Your task to perform on an android device: Open the phone app and click the voicemail tab. Image 0: 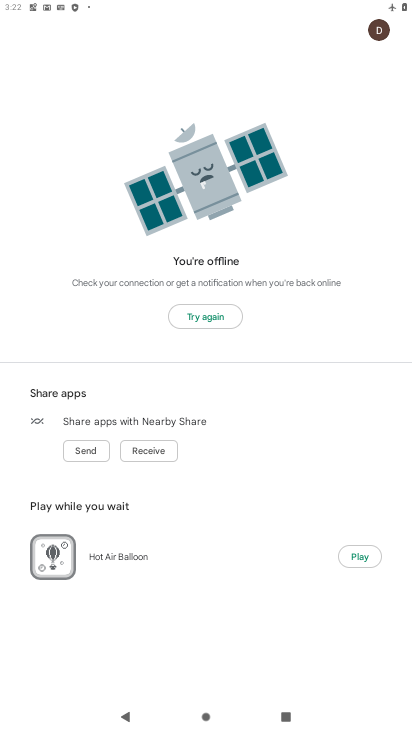
Step 0: press home button
Your task to perform on an android device: Open the phone app and click the voicemail tab. Image 1: 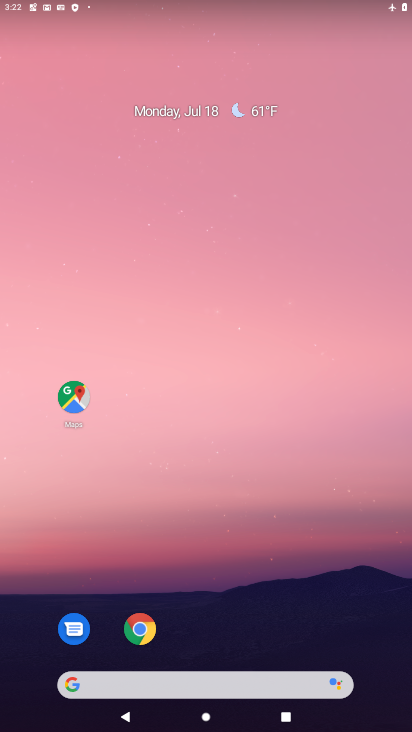
Step 1: drag from (205, 675) to (227, 250)
Your task to perform on an android device: Open the phone app and click the voicemail tab. Image 2: 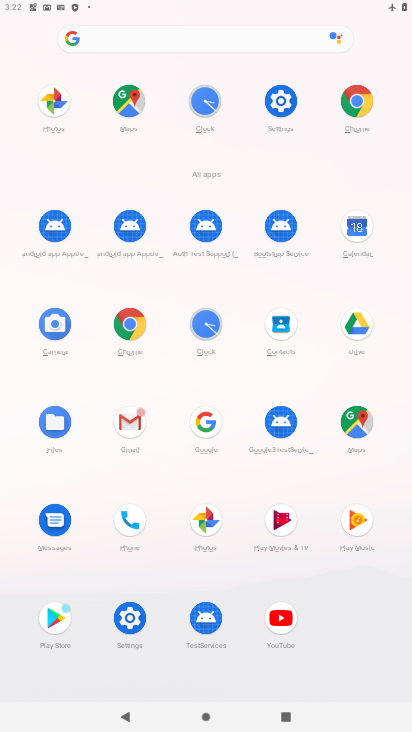
Step 2: click (126, 515)
Your task to perform on an android device: Open the phone app and click the voicemail tab. Image 3: 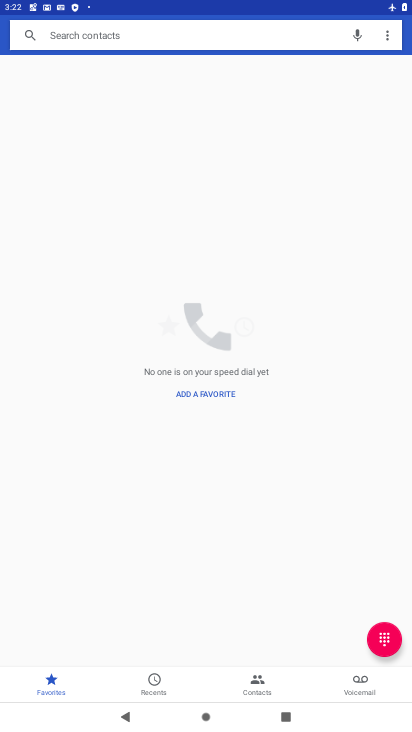
Step 3: click (361, 673)
Your task to perform on an android device: Open the phone app and click the voicemail tab. Image 4: 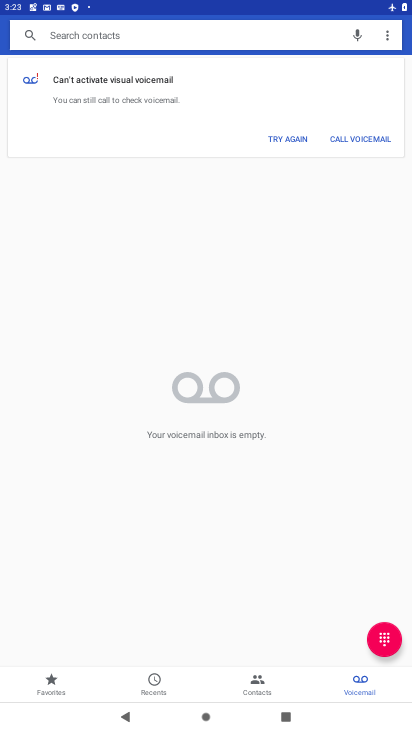
Step 4: task complete